Your task to perform on an android device: Open the web browser Image 0: 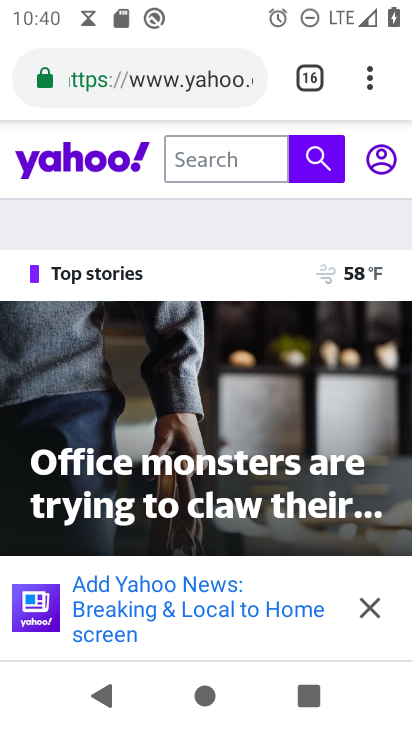
Step 0: press home button
Your task to perform on an android device: Open the web browser Image 1: 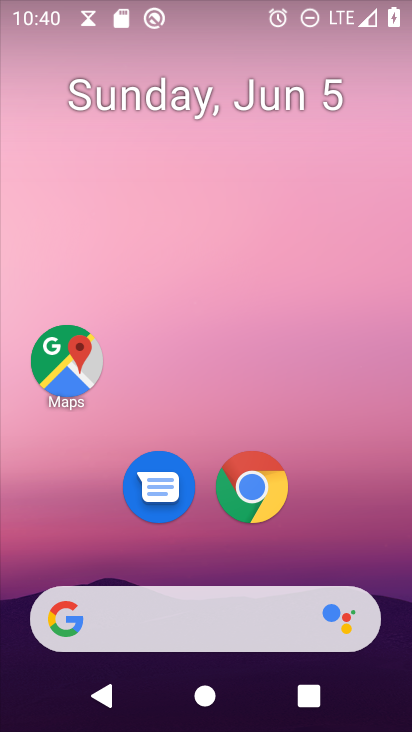
Step 1: click (250, 460)
Your task to perform on an android device: Open the web browser Image 2: 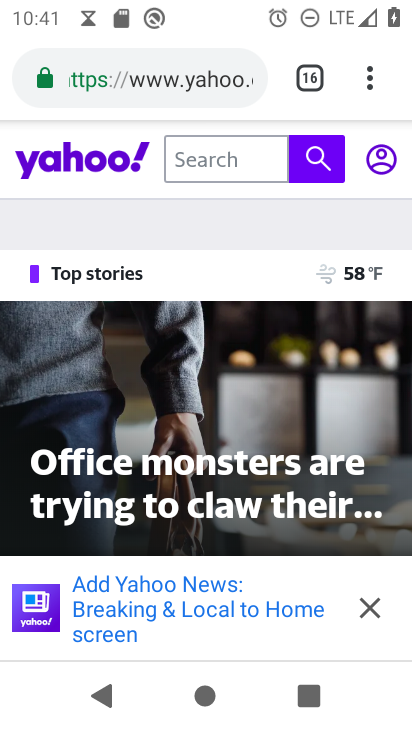
Step 2: task complete